Your task to perform on an android device: Clear the cart on ebay. Search for "energizer triple a" on ebay, select the first entry, add it to the cart, then select checkout. Image 0: 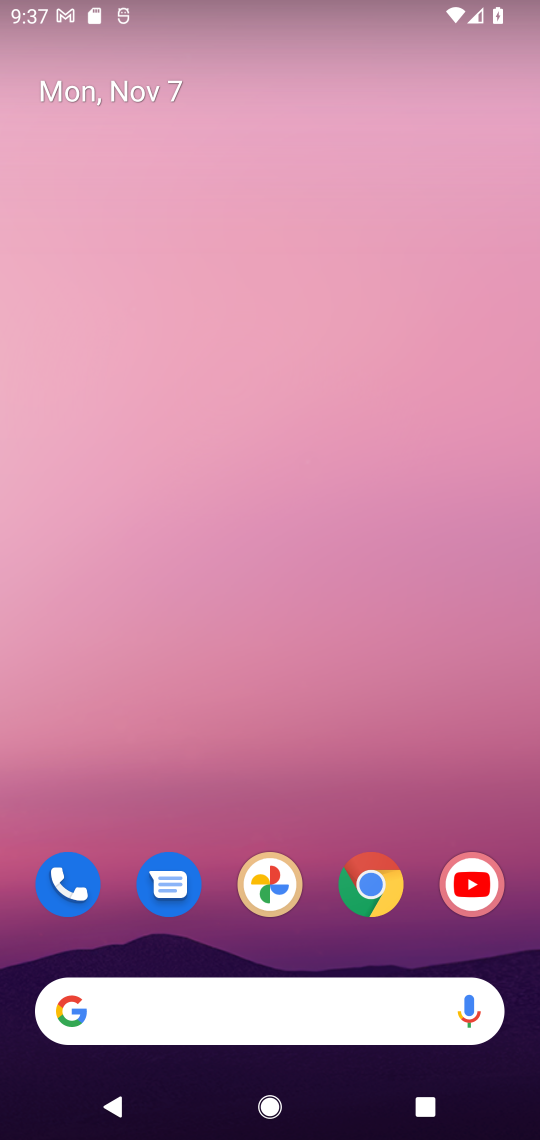
Step 0: click (359, 899)
Your task to perform on an android device: Clear the cart on ebay. Search for "energizer triple a" on ebay, select the first entry, add it to the cart, then select checkout. Image 1: 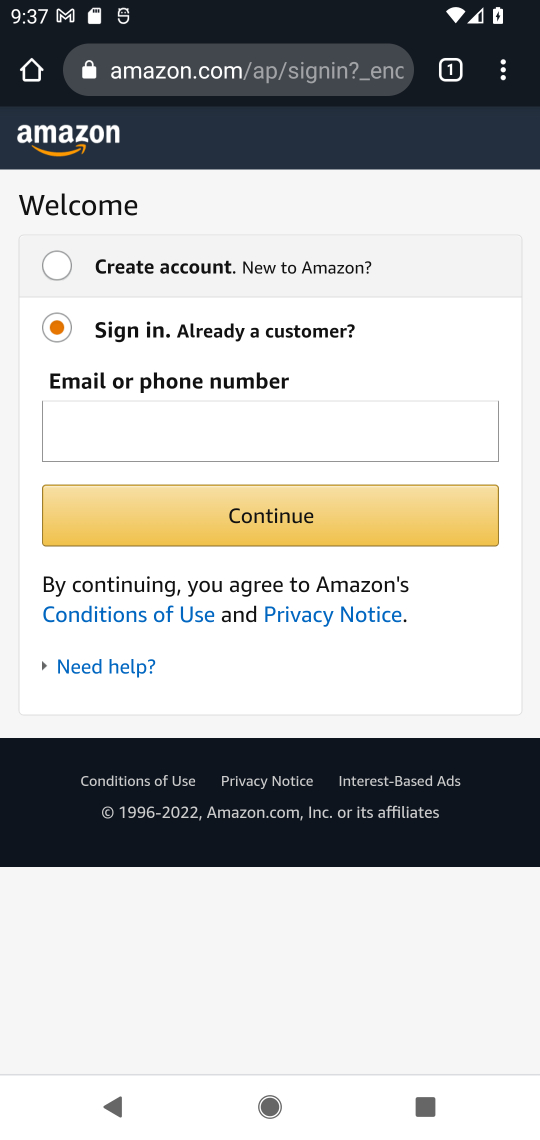
Step 1: click (297, 66)
Your task to perform on an android device: Clear the cart on ebay. Search for "energizer triple a" on ebay, select the first entry, add it to the cart, then select checkout. Image 2: 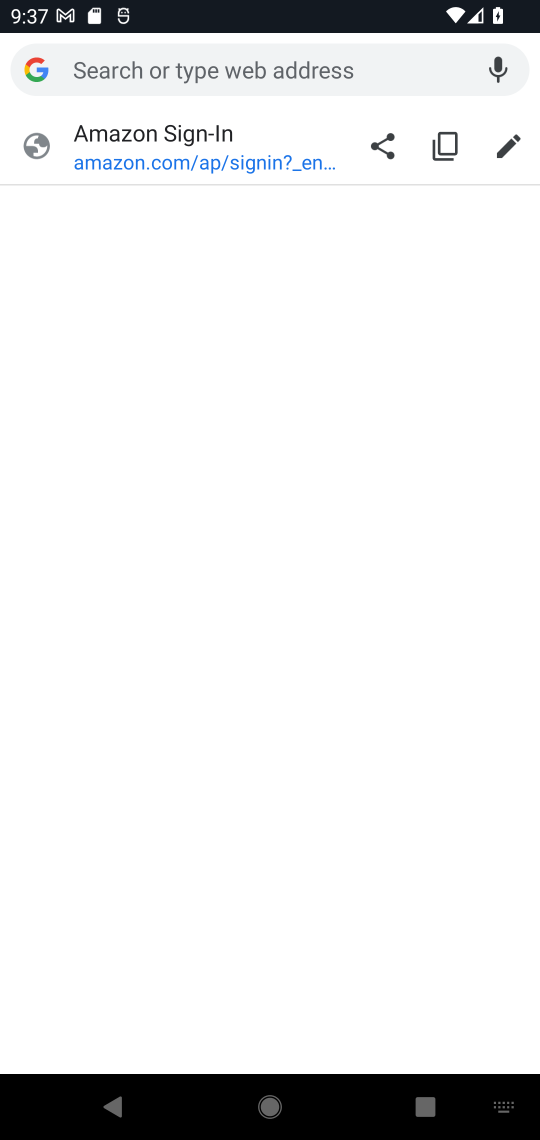
Step 2: type "ebay"
Your task to perform on an android device: Clear the cart on ebay. Search for "energizer triple a" on ebay, select the first entry, add it to the cart, then select checkout. Image 3: 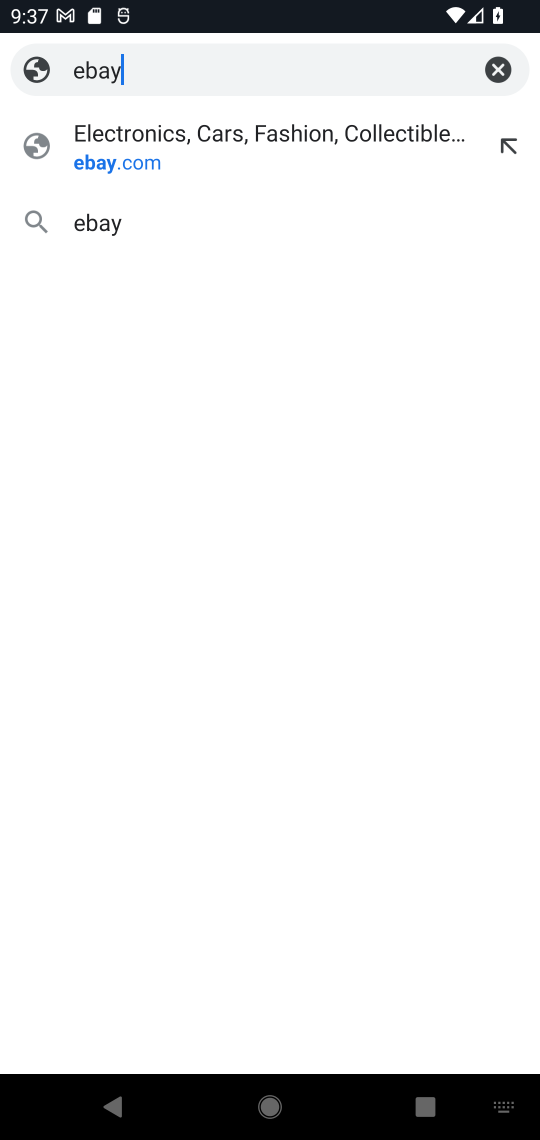
Step 3: click (94, 221)
Your task to perform on an android device: Clear the cart on ebay. Search for "energizer triple a" on ebay, select the first entry, add it to the cart, then select checkout. Image 4: 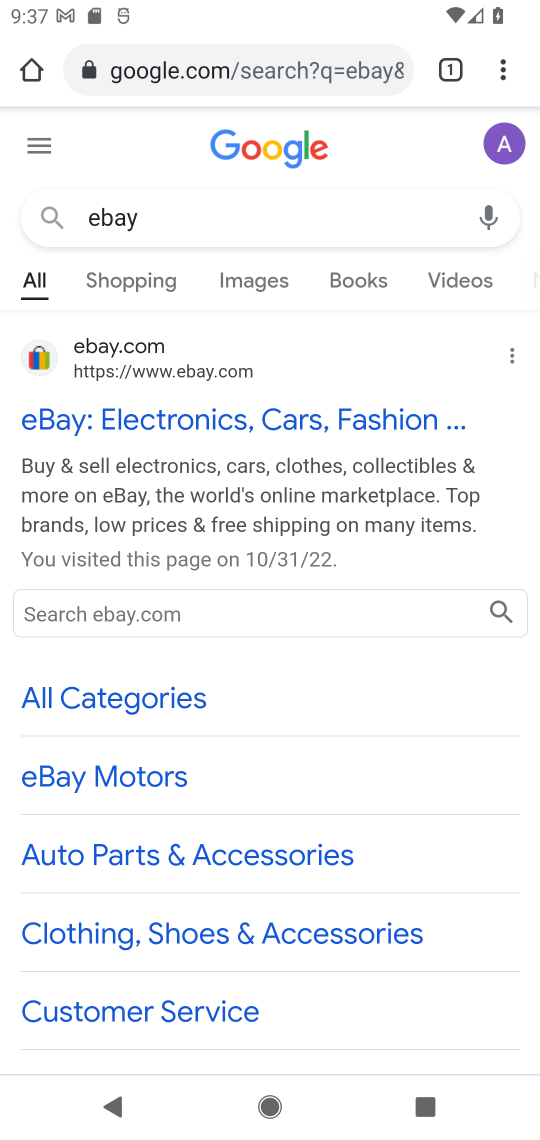
Step 4: click (146, 351)
Your task to perform on an android device: Clear the cart on ebay. Search for "energizer triple a" on ebay, select the first entry, add it to the cart, then select checkout. Image 5: 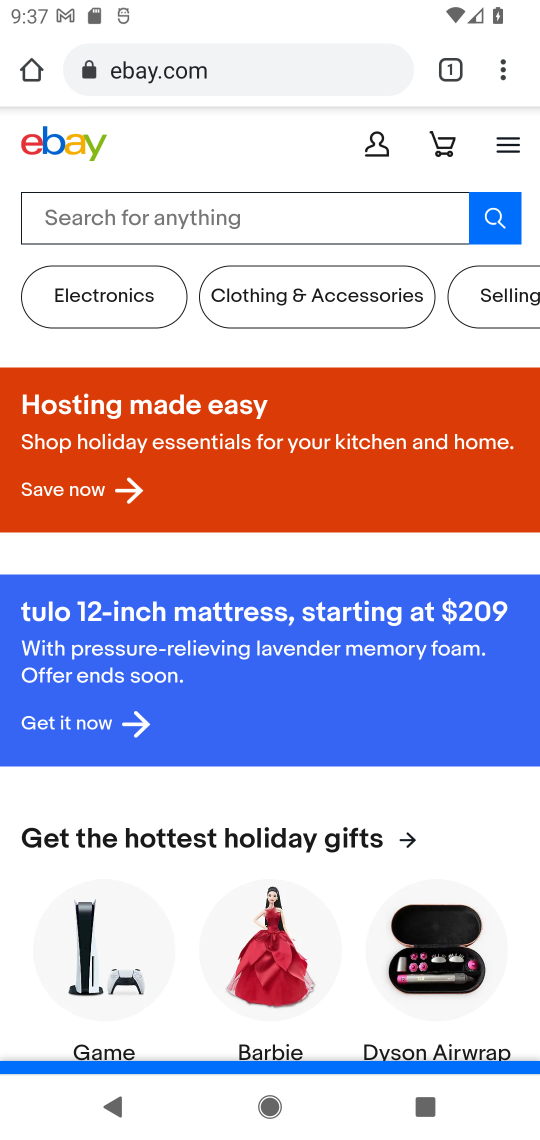
Step 5: click (451, 147)
Your task to perform on an android device: Clear the cart on ebay. Search for "energizer triple a" on ebay, select the first entry, add it to the cart, then select checkout. Image 6: 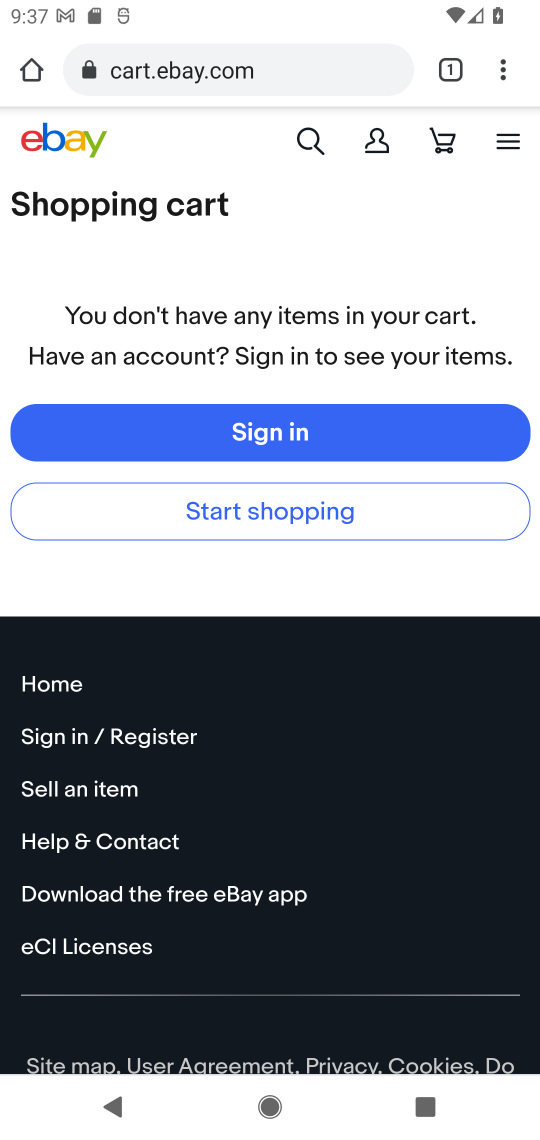
Step 6: click (306, 134)
Your task to perform on an android device: Clear the cart on ebay. Search for "energizer triple a" on ebay, select the first entry, add it to the cart, then select checkout. Image 7: 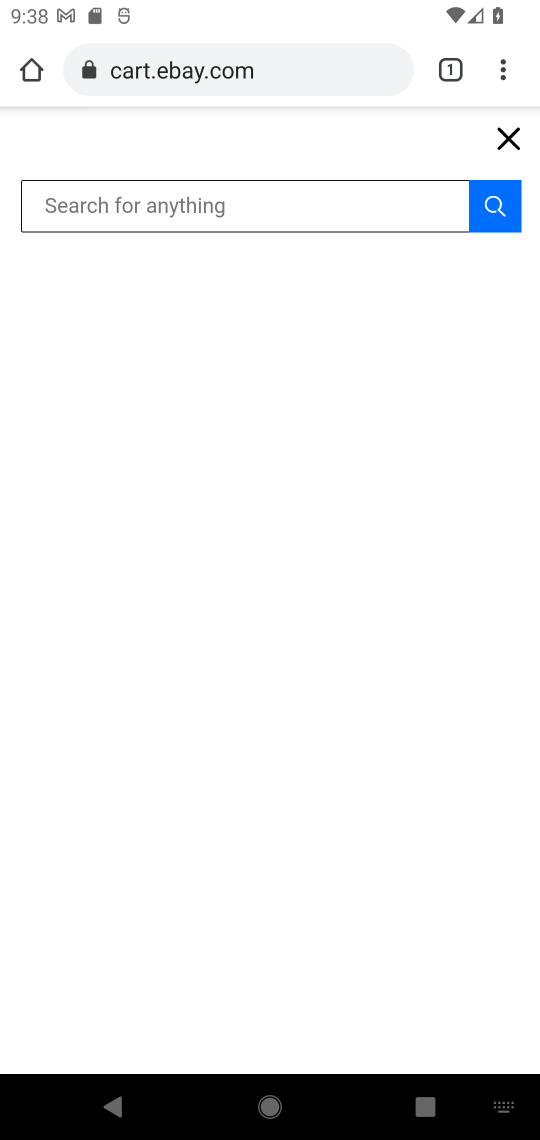
Step 7: type "energizer triple a"
Your task to perform on an android device: Clear the cart on ebay. Search for "energizer triple a" on ebay, select the first entry, add it to the cart, then select checkout. Image 8: 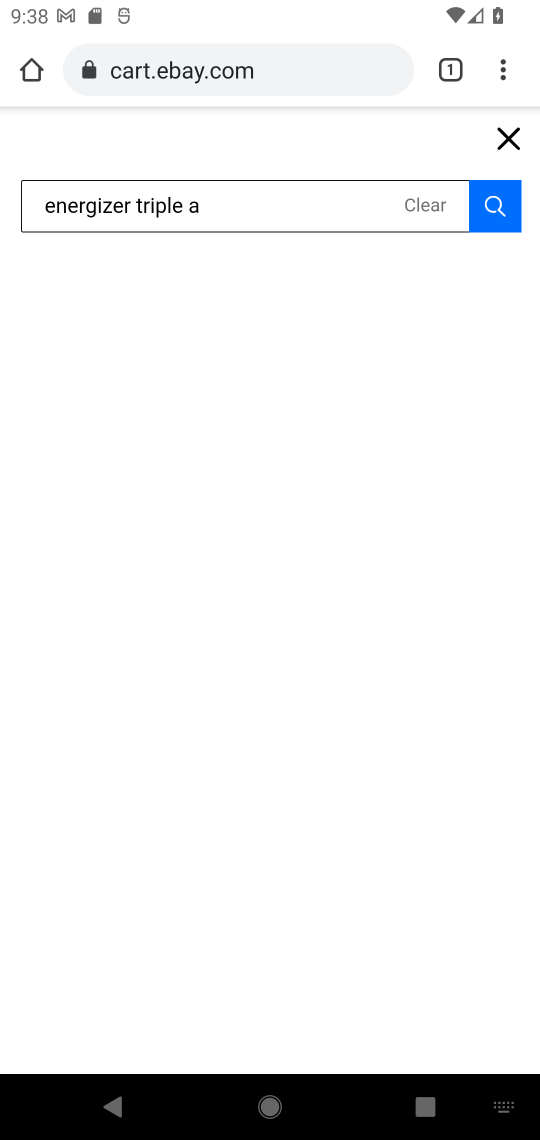
Step 8: click (428, 379)
Your task to perform on an android device: Clear the cart on ebay. Search for "energizer triple a" on ebay, select the first entry, add it to the cart, then select checkout. Image 9: 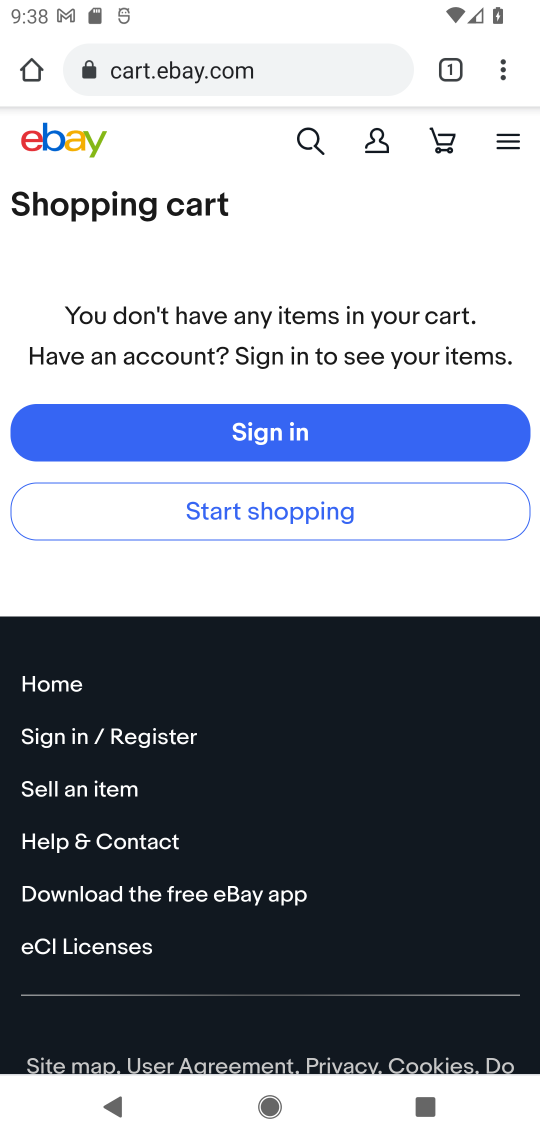
Step 9: task complete